Your task to perform on an android device: open app "AliExpress" (install if not already installed) Image 0: 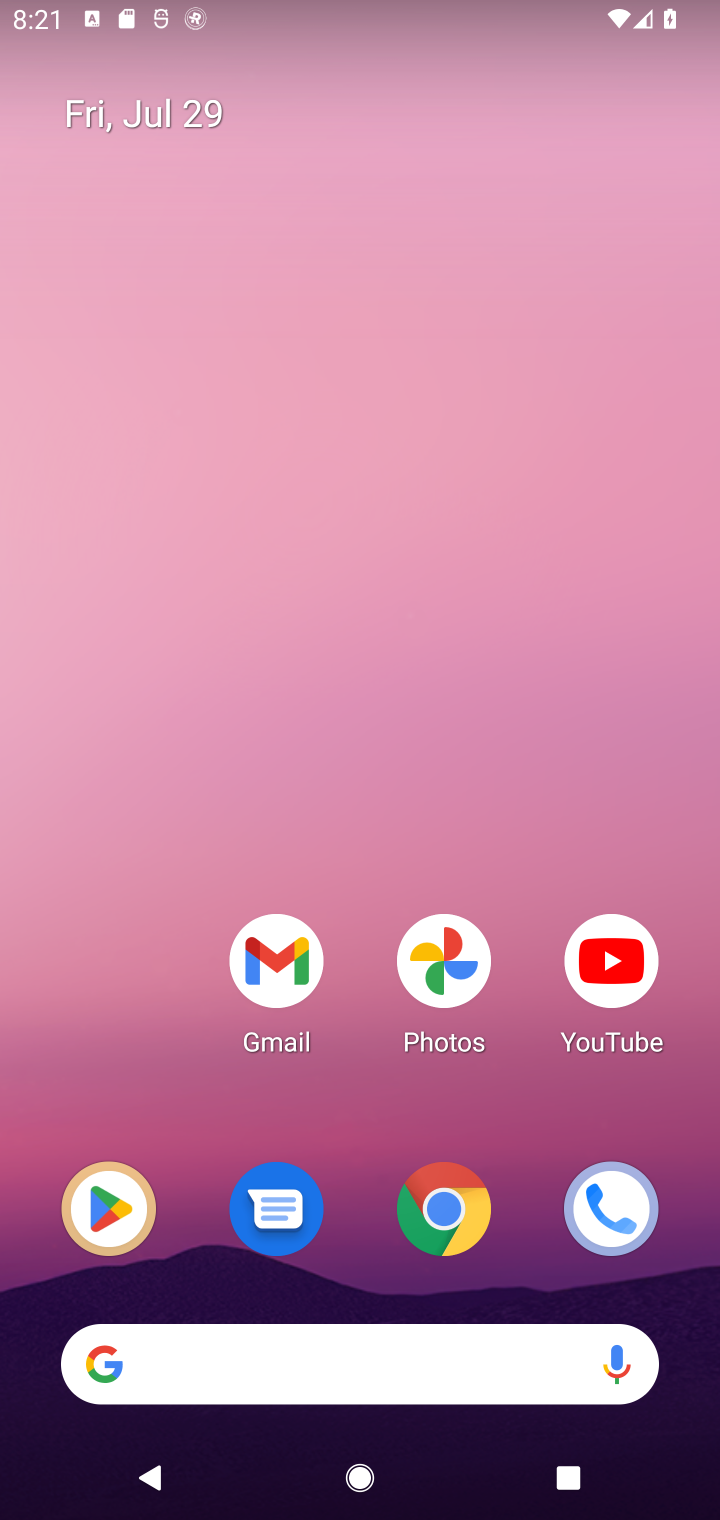
Step 0: click (101, 1227)
Your task to perform on an android device: open app "AliExpress" (install if not already installed) Image 1: 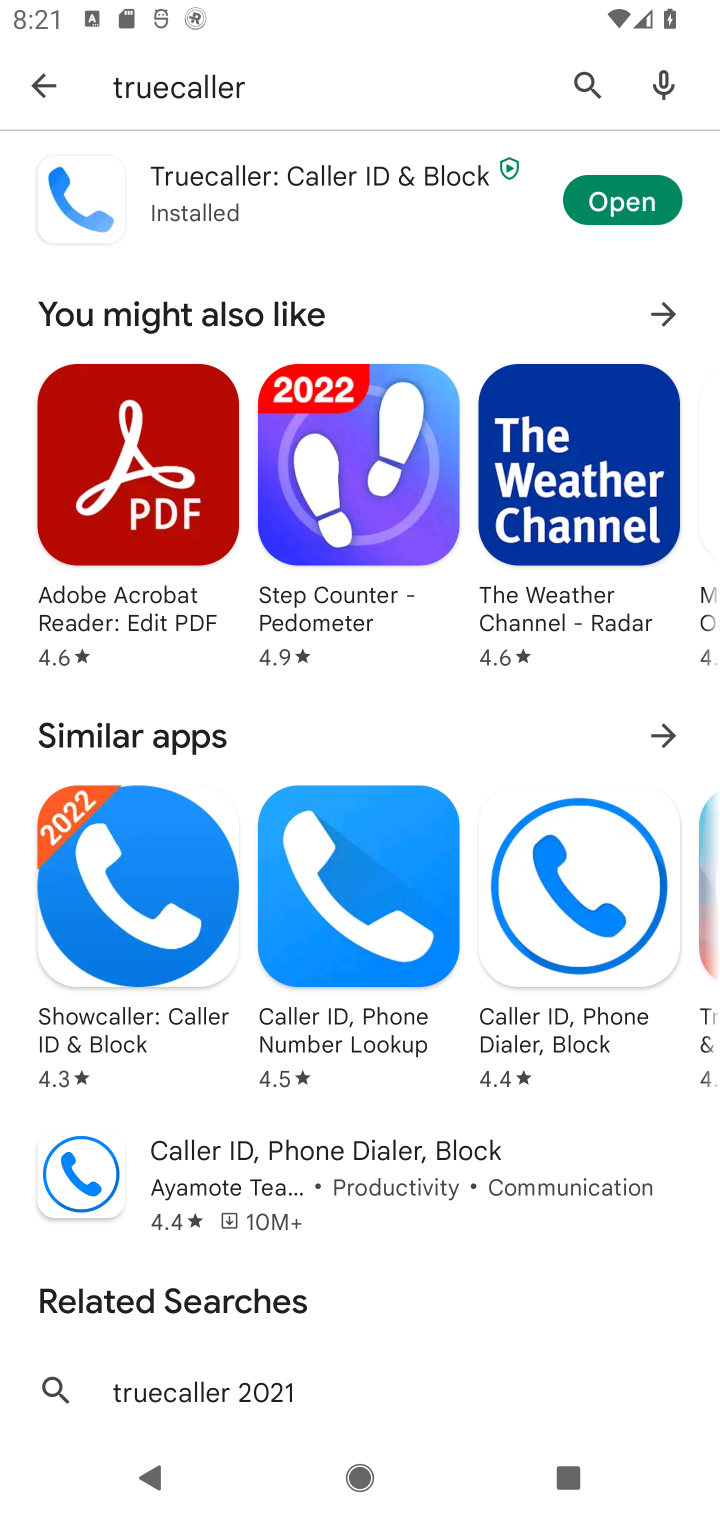
Step 1: click (586, 73)
Your task to perform on an android device: open app "AliExpress" (install if not already installed) Image 2: 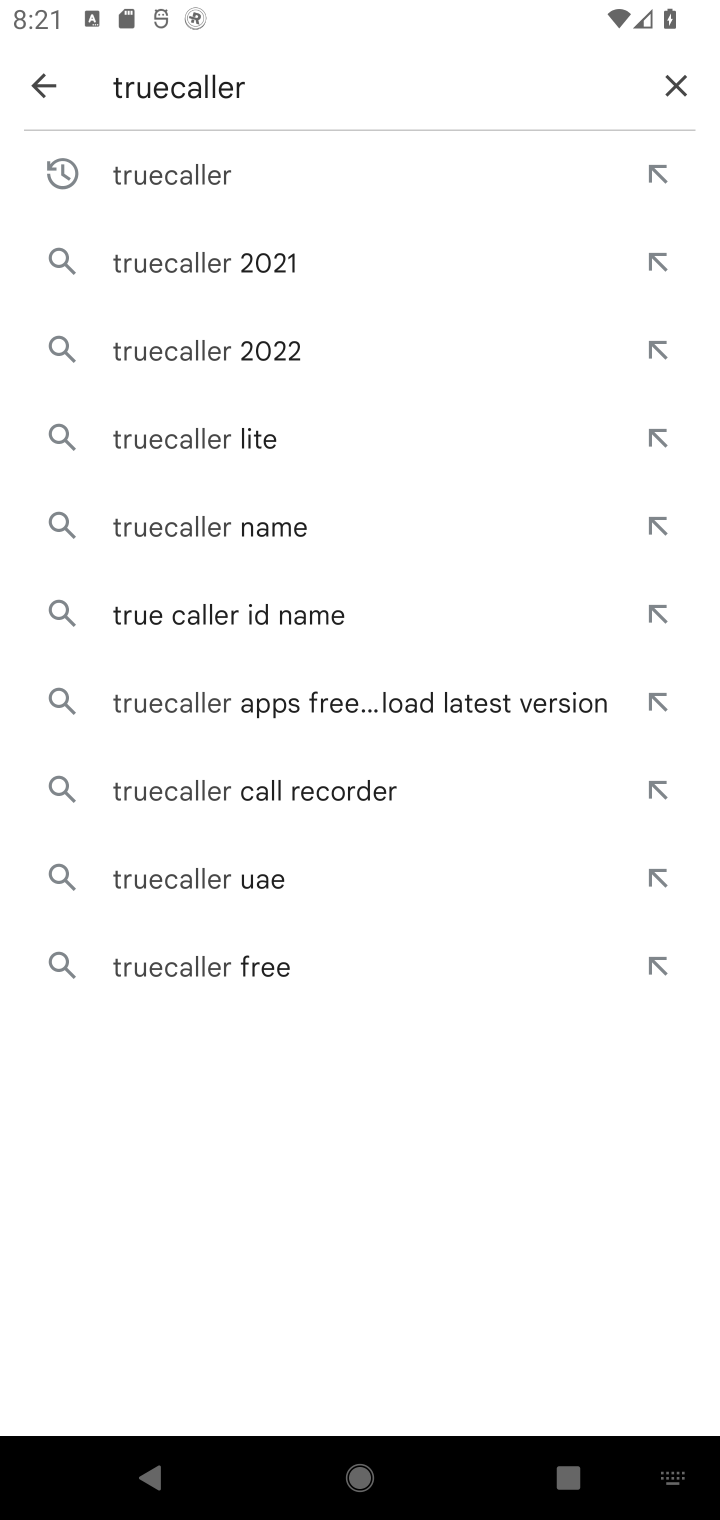
Step 2: click (687, 97)
Your task to perform on an android device: open app "AliExpress" (install if not already installed) Image 3: 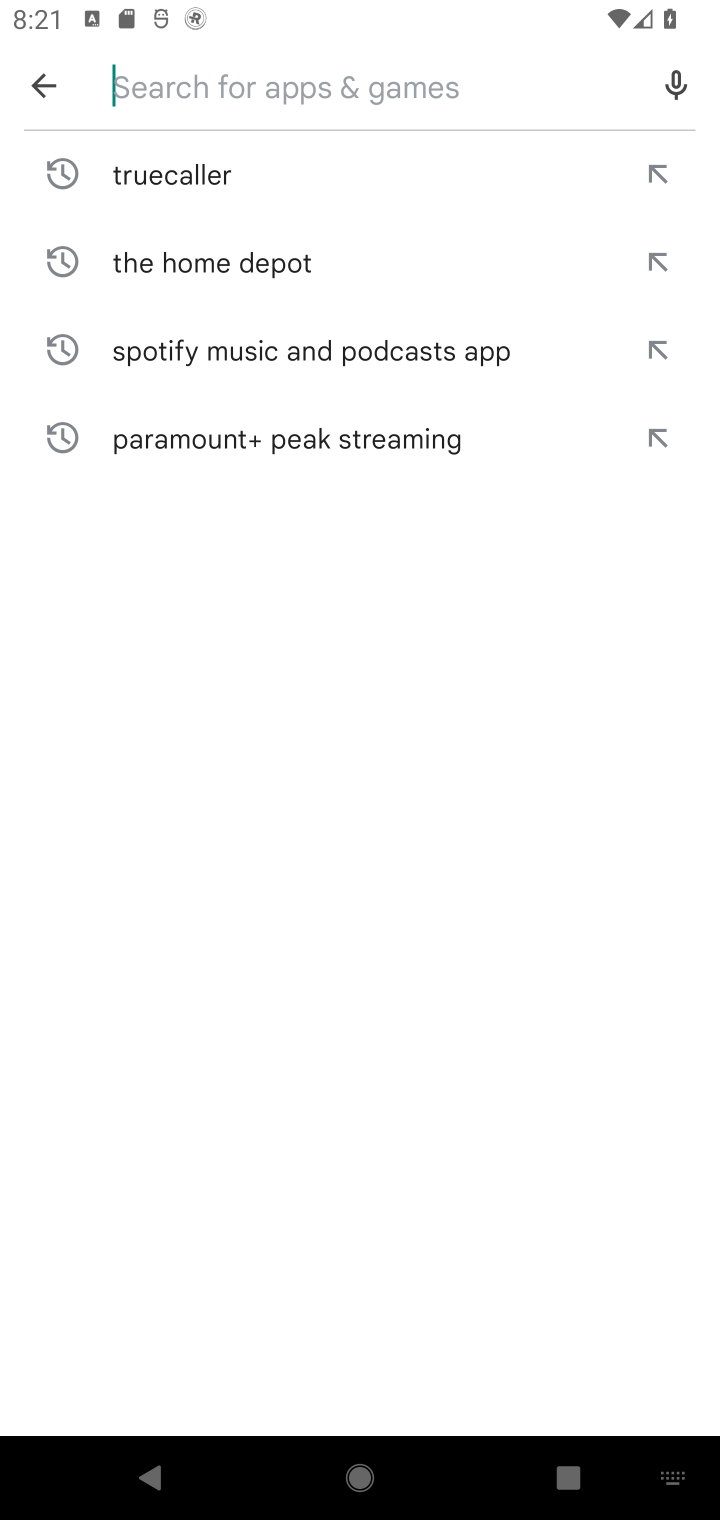
Step 3: type "AliExpress"
Your task to perform on an android device: open app "AliExpress" (install if not already installed) Image 4: 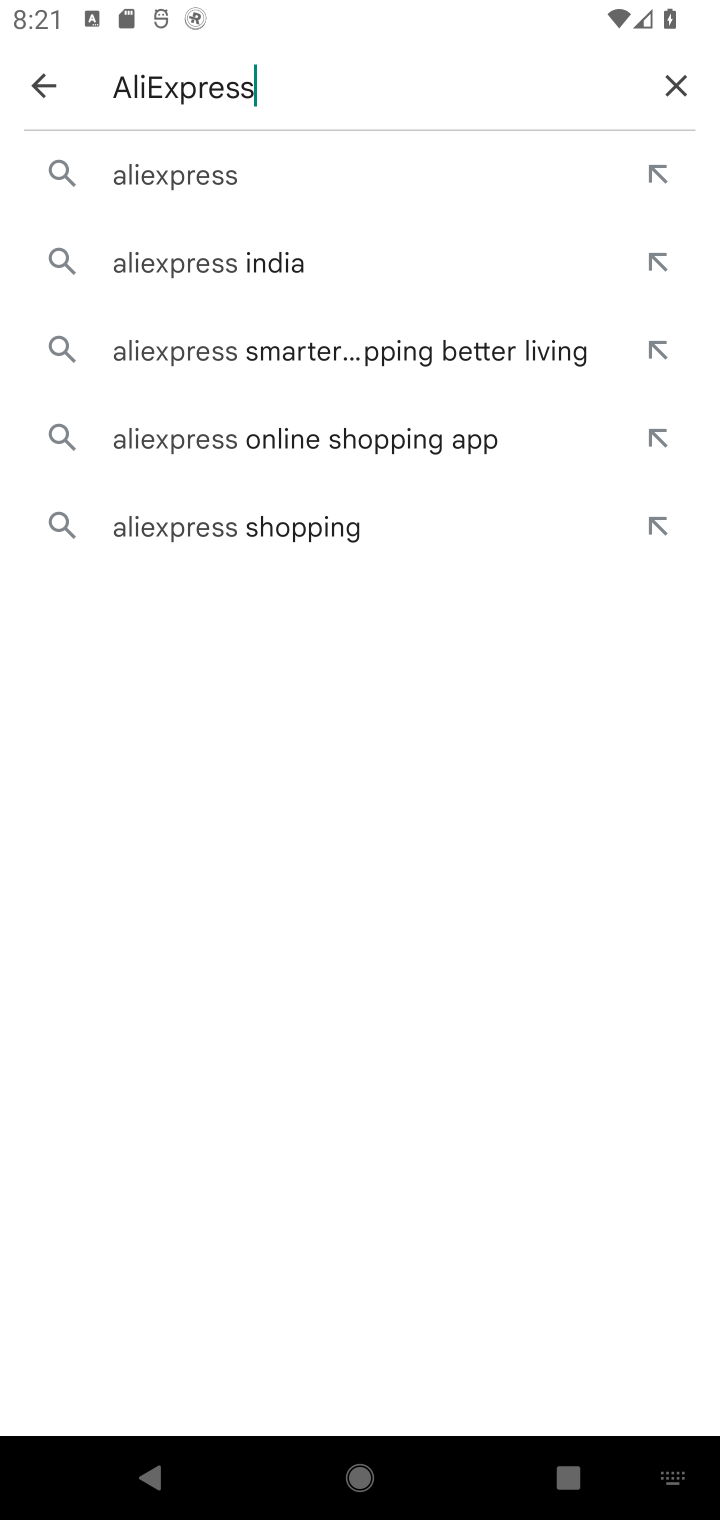
Step 4: click (137, 177)
Your task to perform on an android device: open app "AliExpress" (install if not already installed) Image 5: 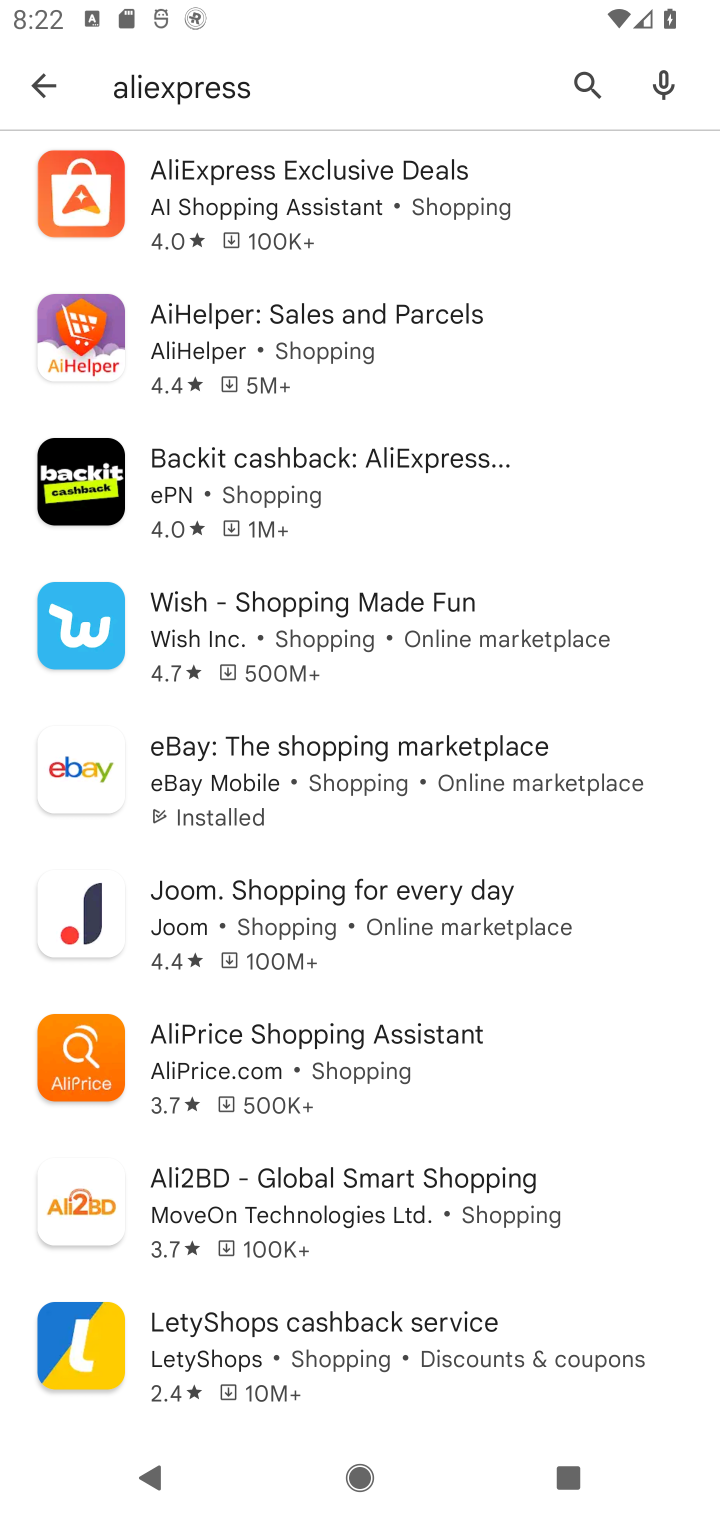
Step 5: click (230, 206)
Your task to perform on an android device: open app "AliExpress" (install if not already installed) Image 6: 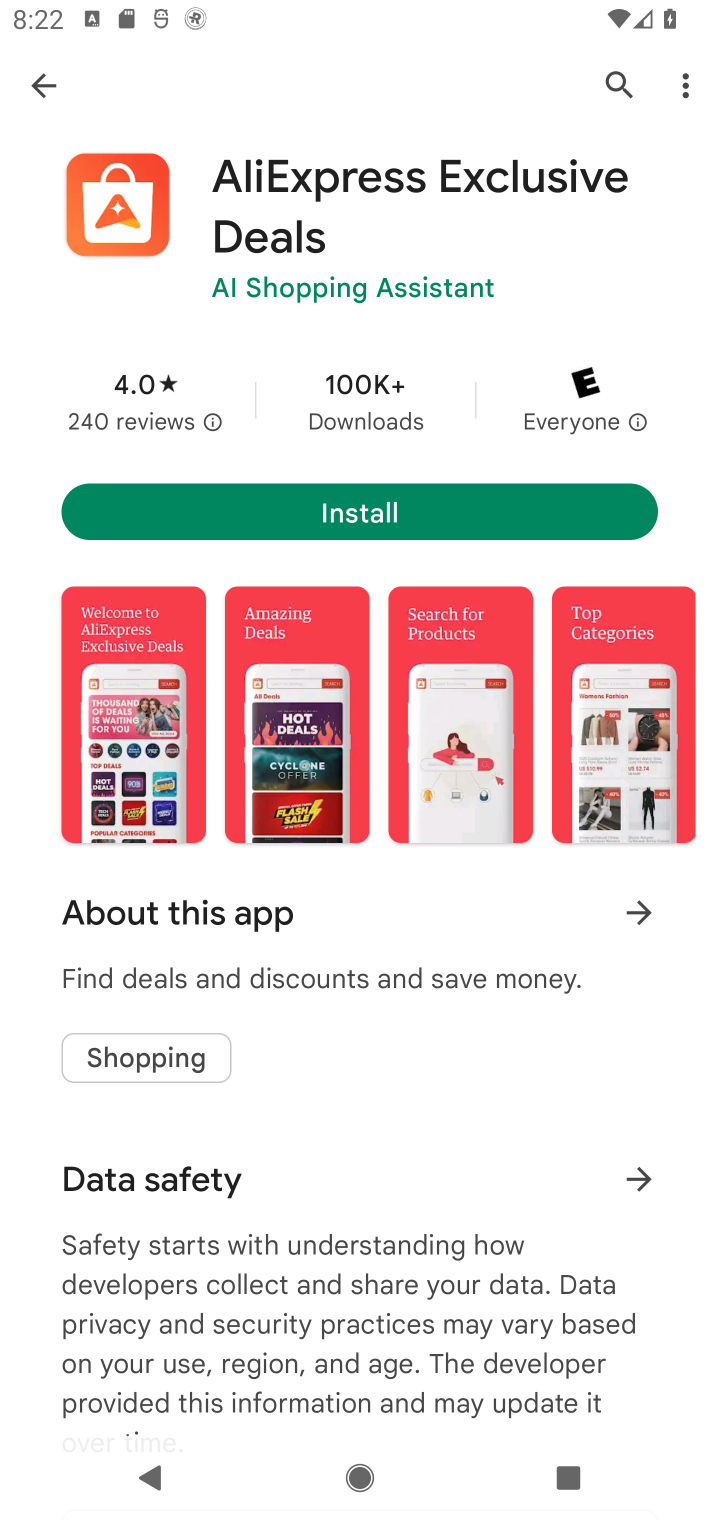
Step 6: click (308, 509)
Your task to perform on an android device: open app "AliExpress" (install if not already installed) Image 7: 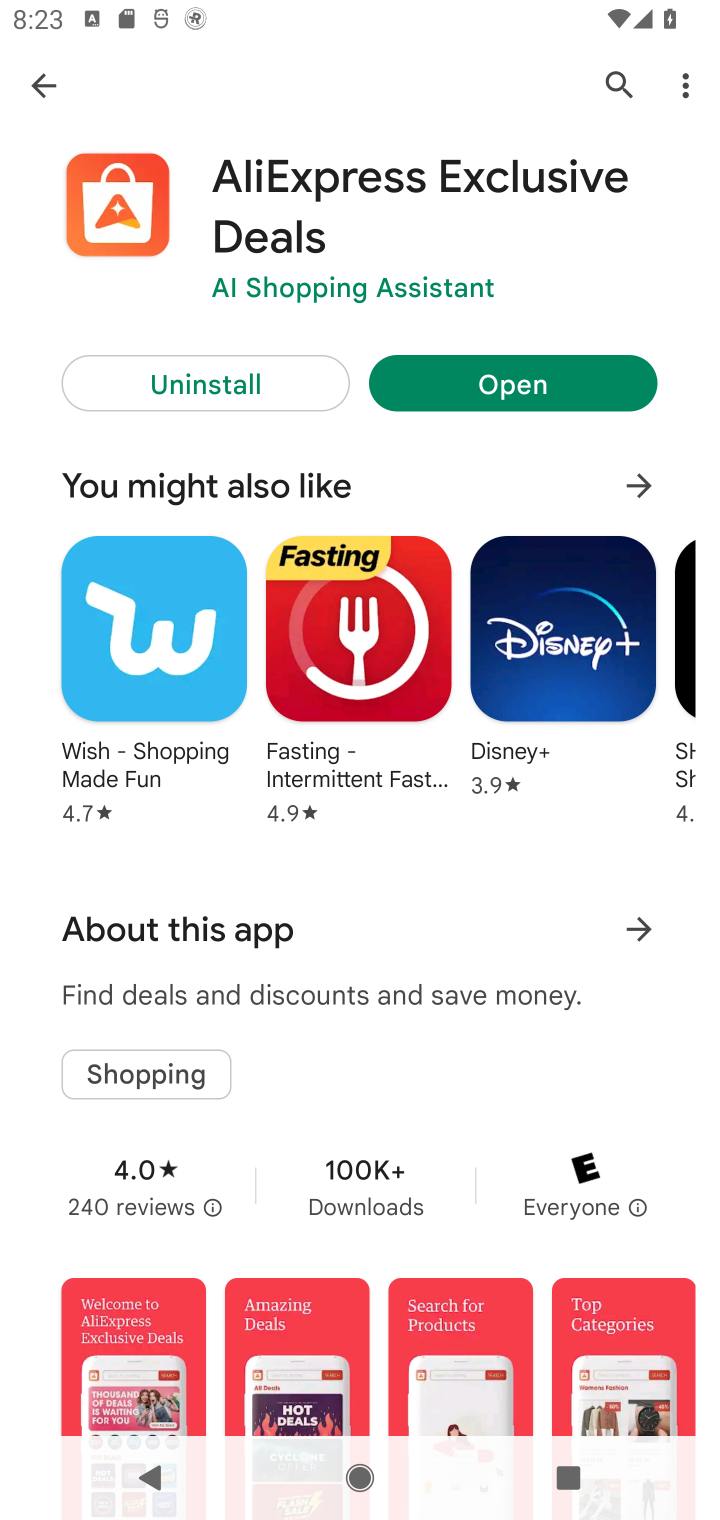
Step 7: click (457, 390)
Your task to perform on an android device: open app "AliExpress" (install if not already installed) Image 8: 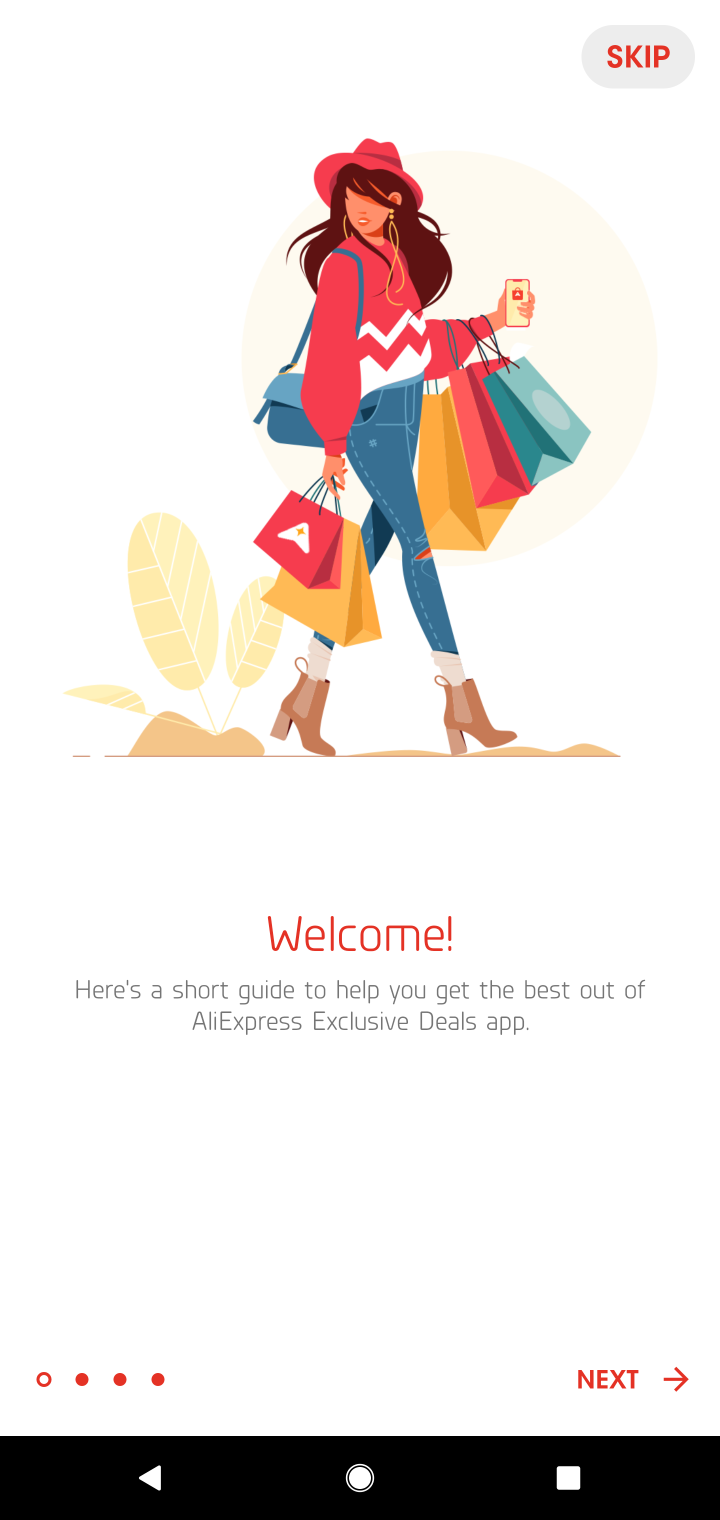
Step 8: task complete